Your task to perform on an android device: choose inbox layout in the gmail app Image 0: 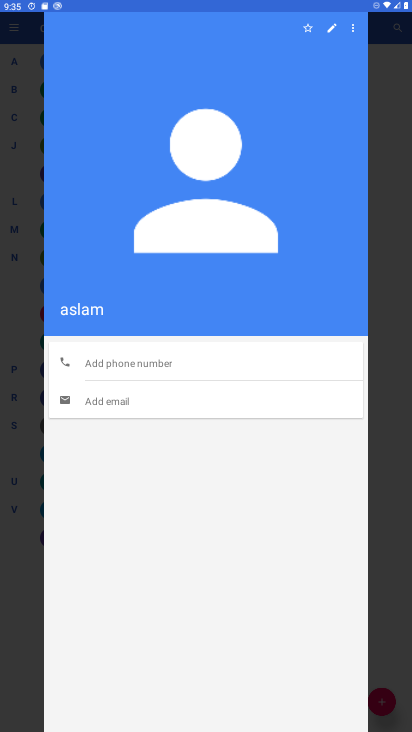
Step 0: press home button
Your task to perform on an android device: choose inbox layout in the gmail app Image 1: 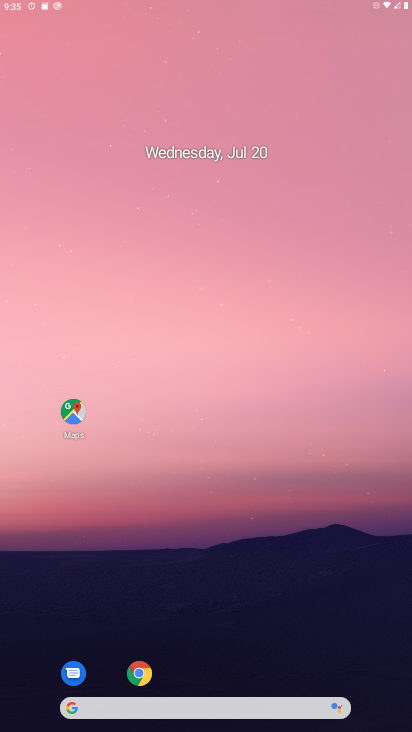
Step 1: drag from (380, 685) to (210, 71)
Your task to perform on an android device: choose inbox layout in the gmail app Image 2: 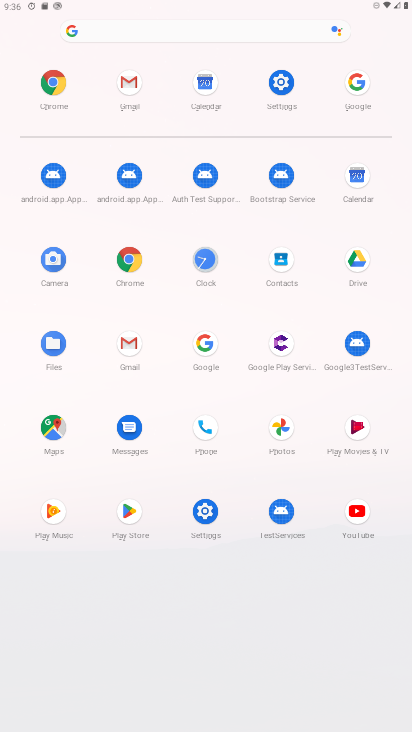
Step 2: click (129, 346)
Your task to perform on an android device: choose inbox layout in the gmail app Image 3: 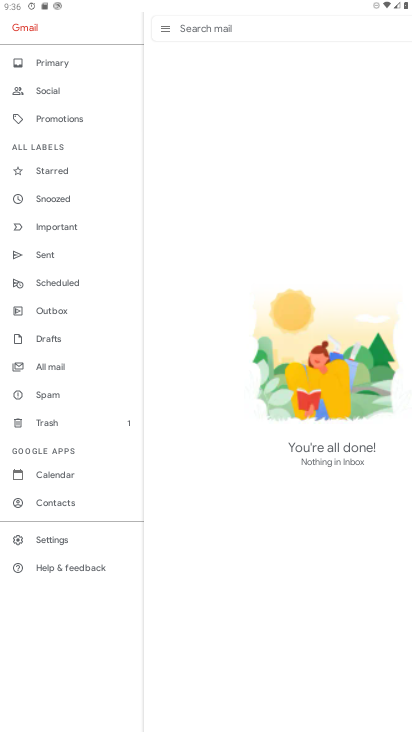
Step 3: task complete